Your task to perform on an android device: Is it going to rain today? Image 0: 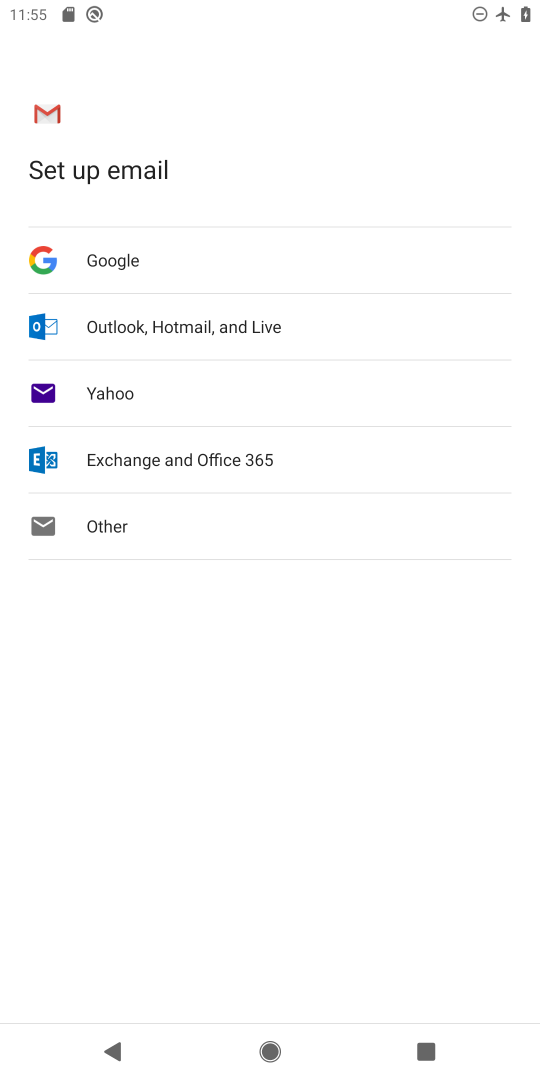
Step 0: press home button
Your task to perform on an android device: Is it going to rain today? Image 1: 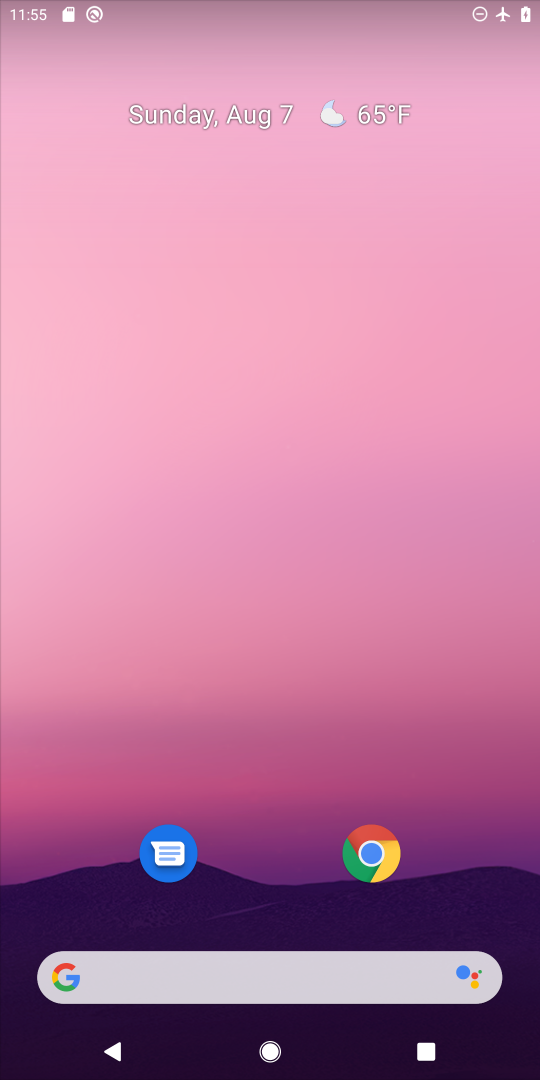
Step 1: drag from (337, 950) to (355, 267)
Your task to perform on an android device: Is it going to rain today? Image 2: 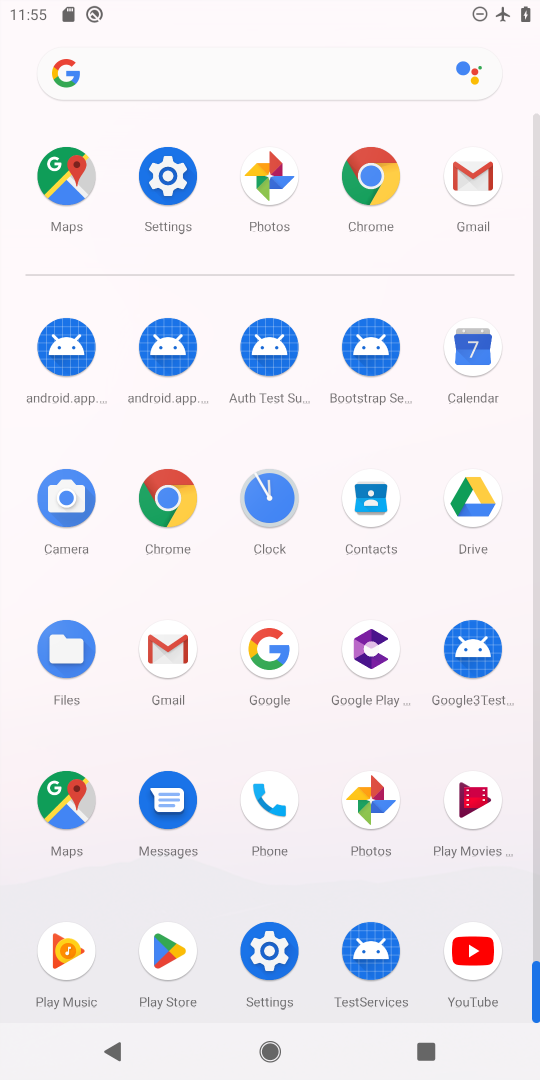
Step 2: click (161, 484)
Your task to perform on an android device: Is it going to rain today? Image 3: 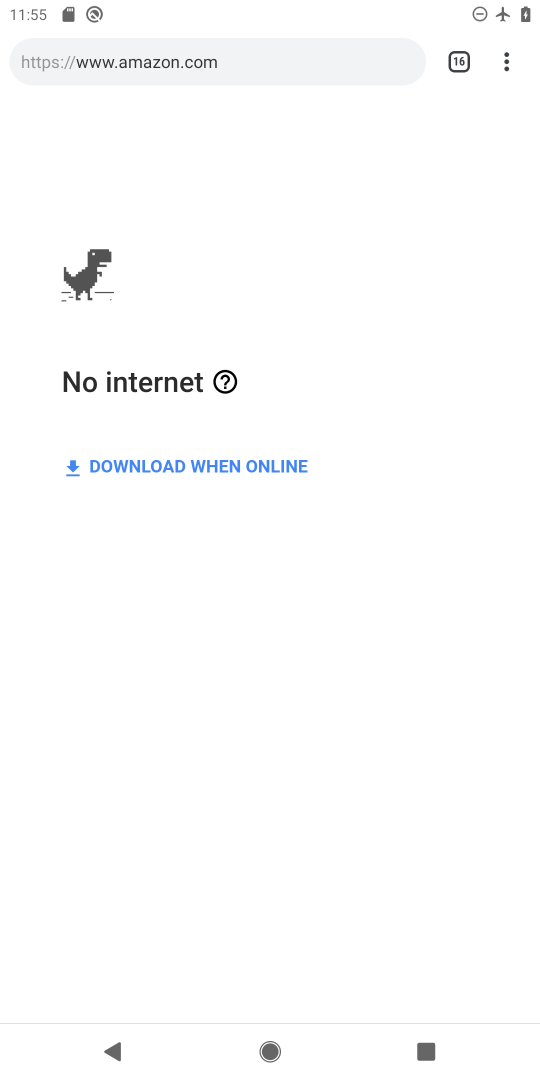
Step 3: click (507, 51)
Your task to perform on an android device: Is it going to rain today? Image 4: 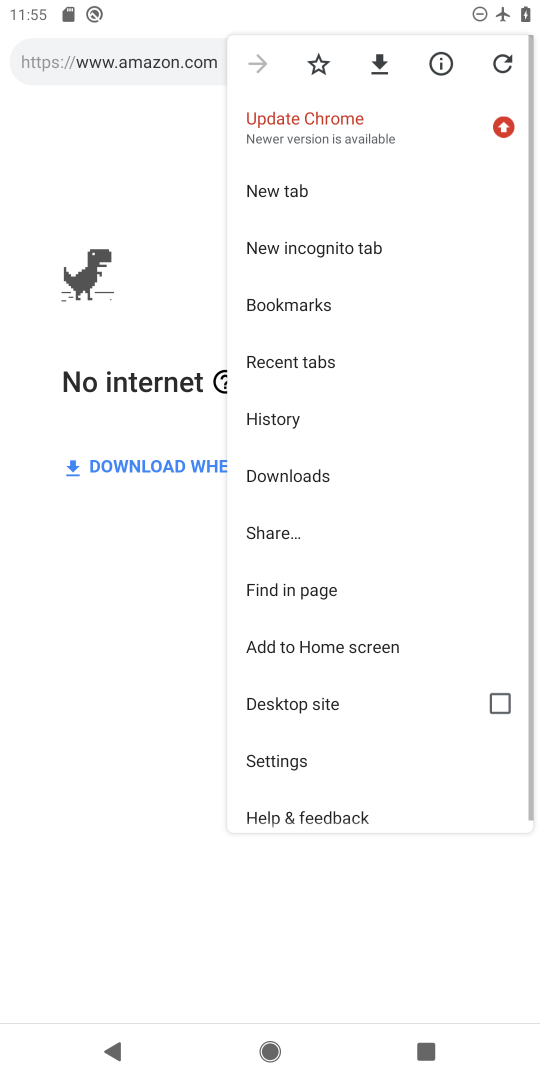
Step 4: click (269, 130)
Your task to perform on an android device: Is it going to rain today? Image 5: 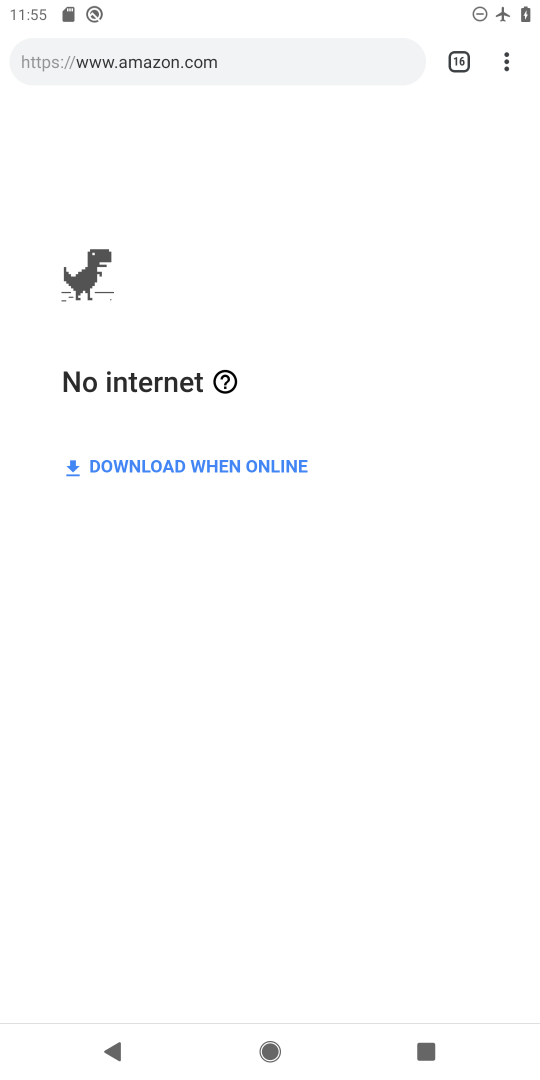
Step 5: click (291, 193)
Your task to perform on an android device: Is it going to rain today? Image 6: 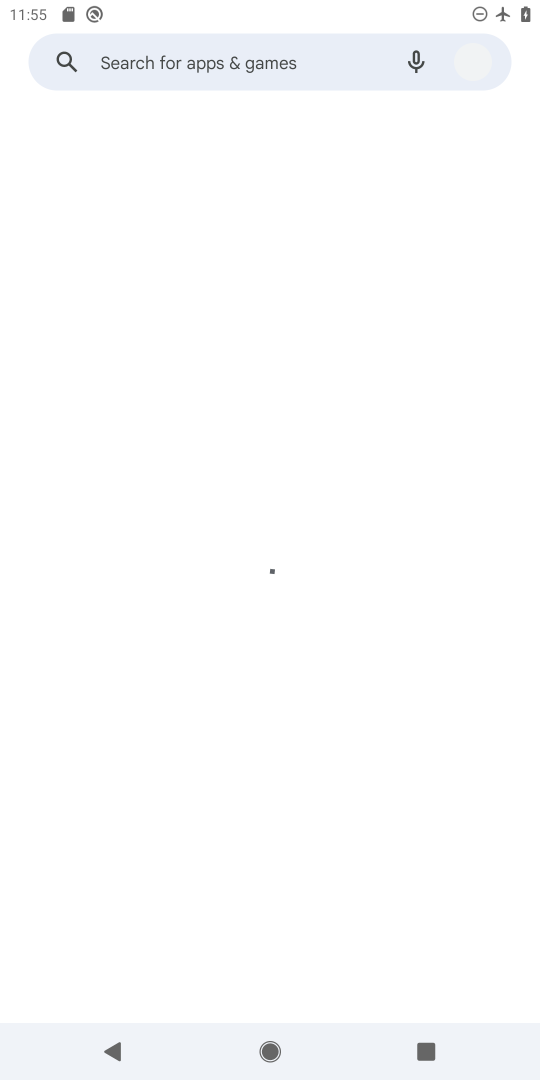
Step 6: press back button
Your task to perform on an android device: Is it going to rain today? Image 7: 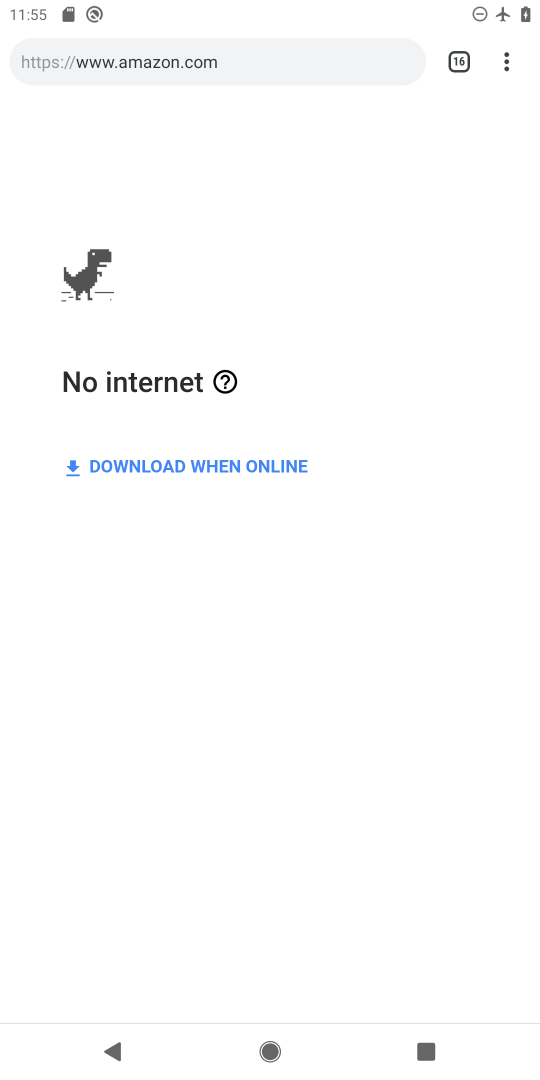
Step 7: click (505, 63)
Your task to perform on an android device: Is it going to rain today? Image 8: 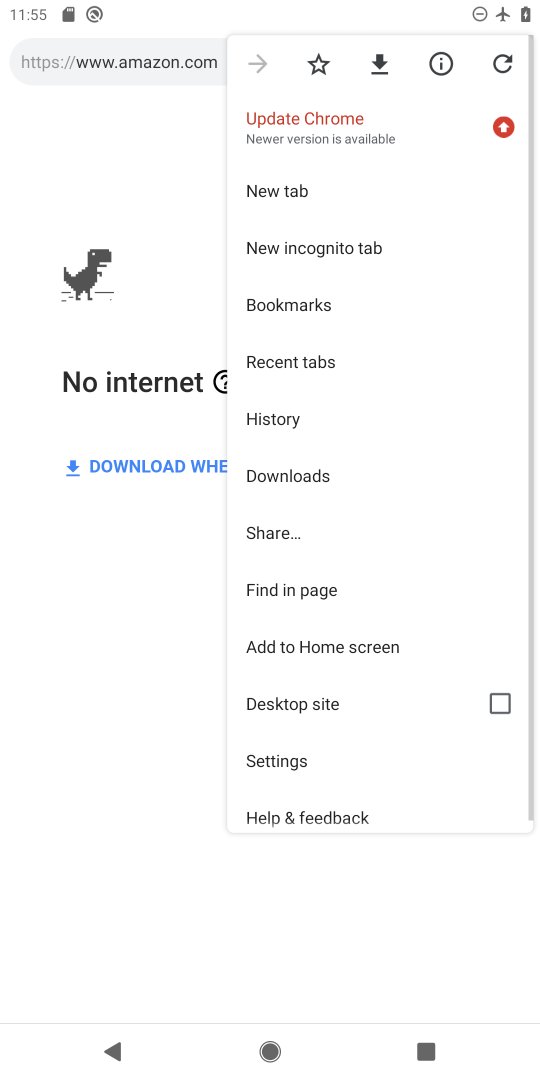
Step 8: click (266, 200)
Your task to perform on an android device: Is it going to rain today? Image 9: 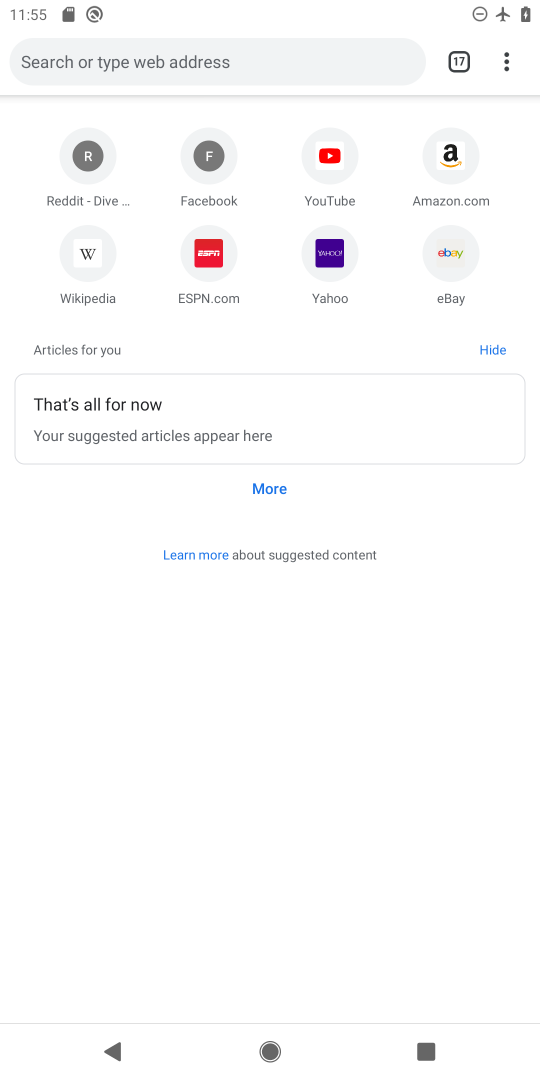
Step 9: click (286, 61)
Your task to perform on an android device: Is it going to rain today? Image 10: 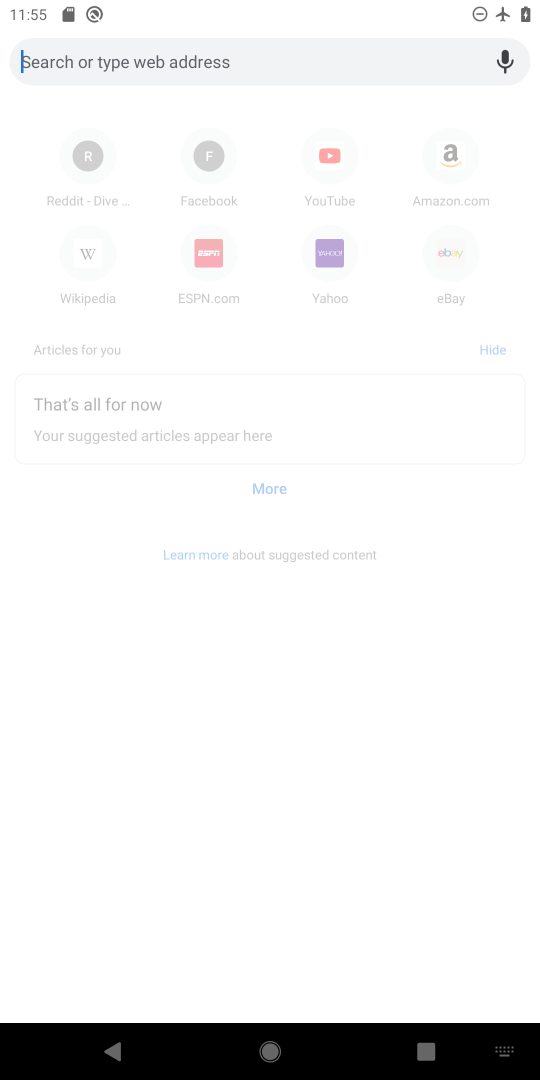
Step 10: type "Is it going to rain today? "
Your task to perform on an android device: Is it going to rain today? Image 11: 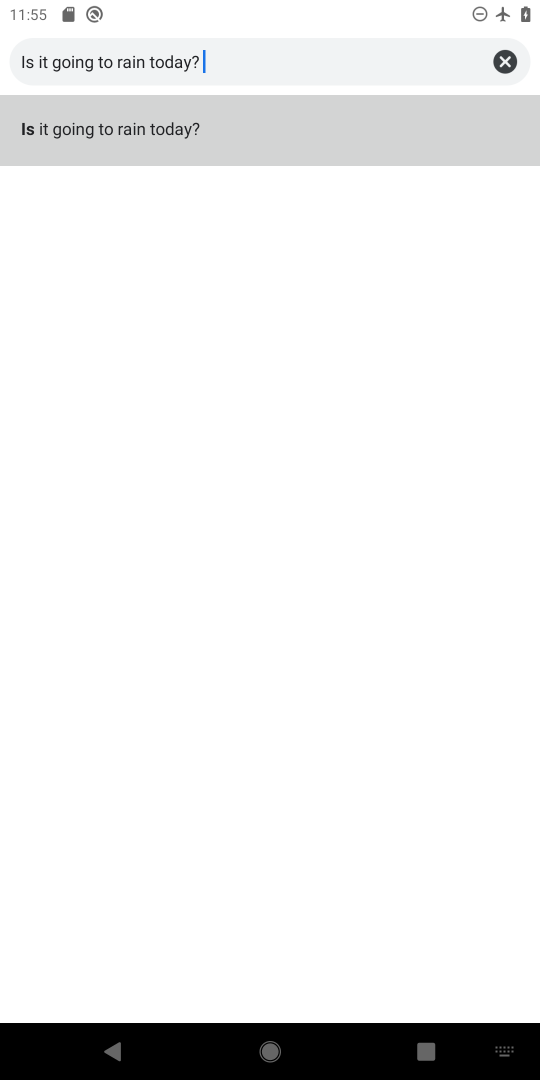
Step 11: click (194, 138)
Your task to perform on an android device: Is it going to rain today? Image 12: 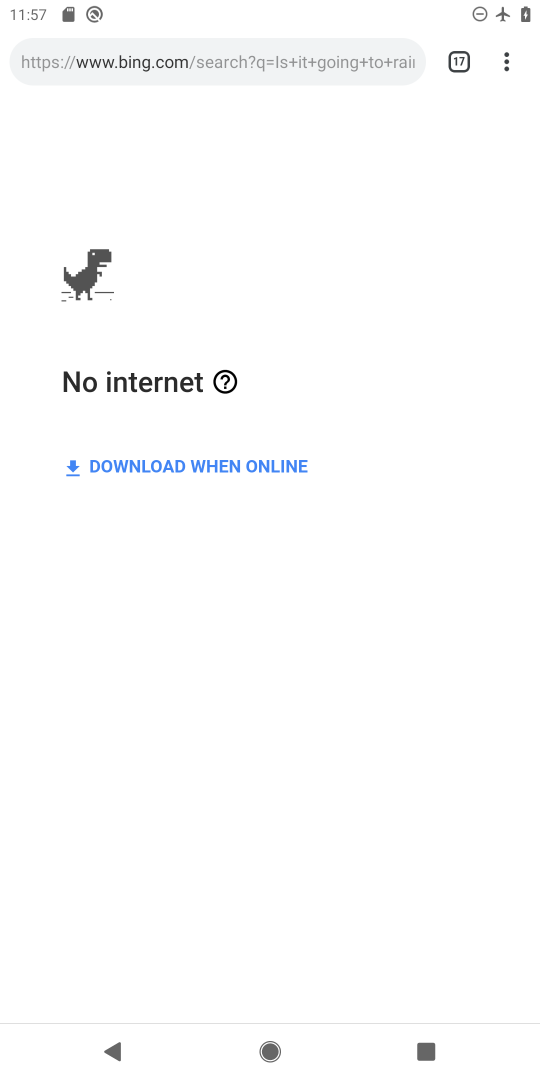
Step 12: task complete